Your task to perform on an android device: Go to sound settings Image 0: 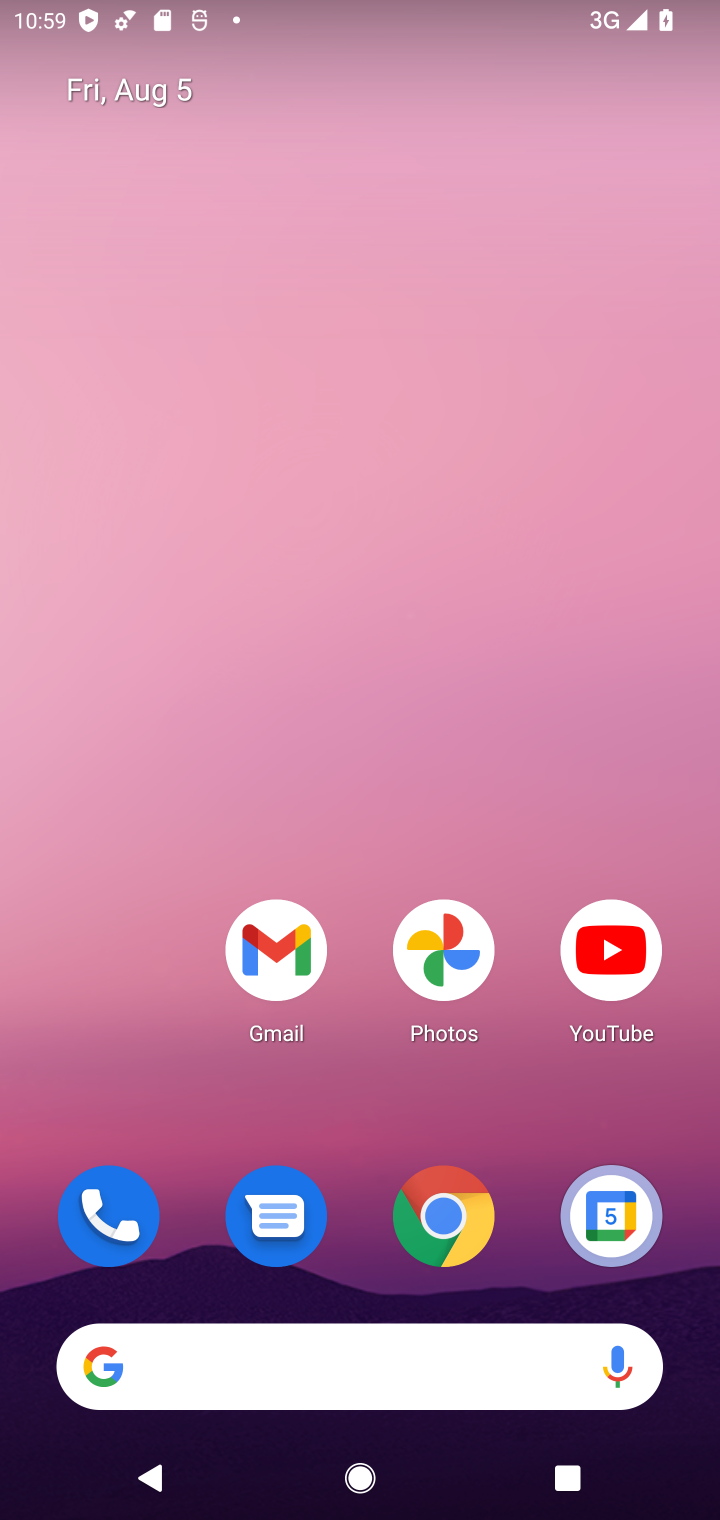
Step 0: drag from (485, 1366) to (591, 64)
Your task to perform on an android device: Go to sound settings Image 1: 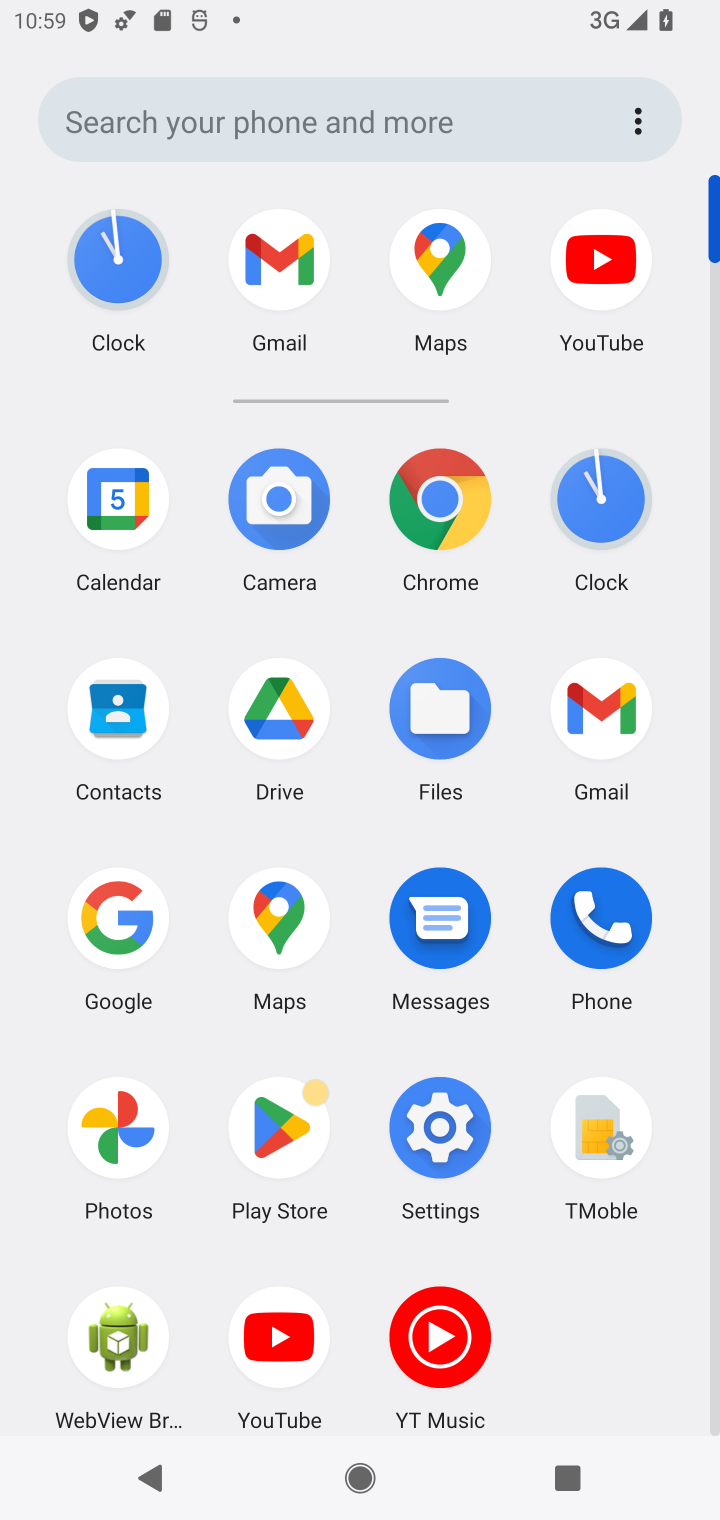
Step 1: click (424, 1148)
Your task to perform on an android device: Go to sound settings Image 2: 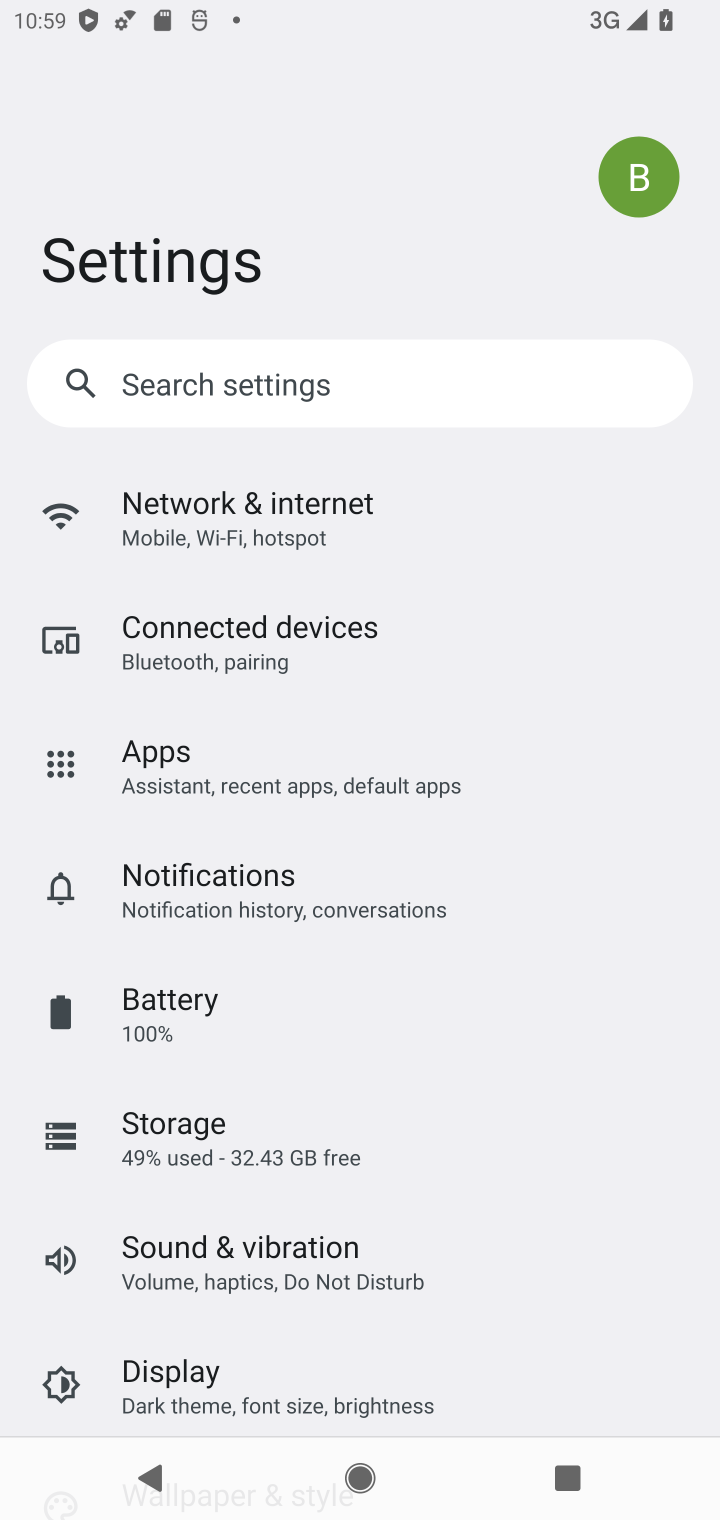
Step 2: click (356, 1254)
Your task to perform on an android device: Go to sound settings Image 3: 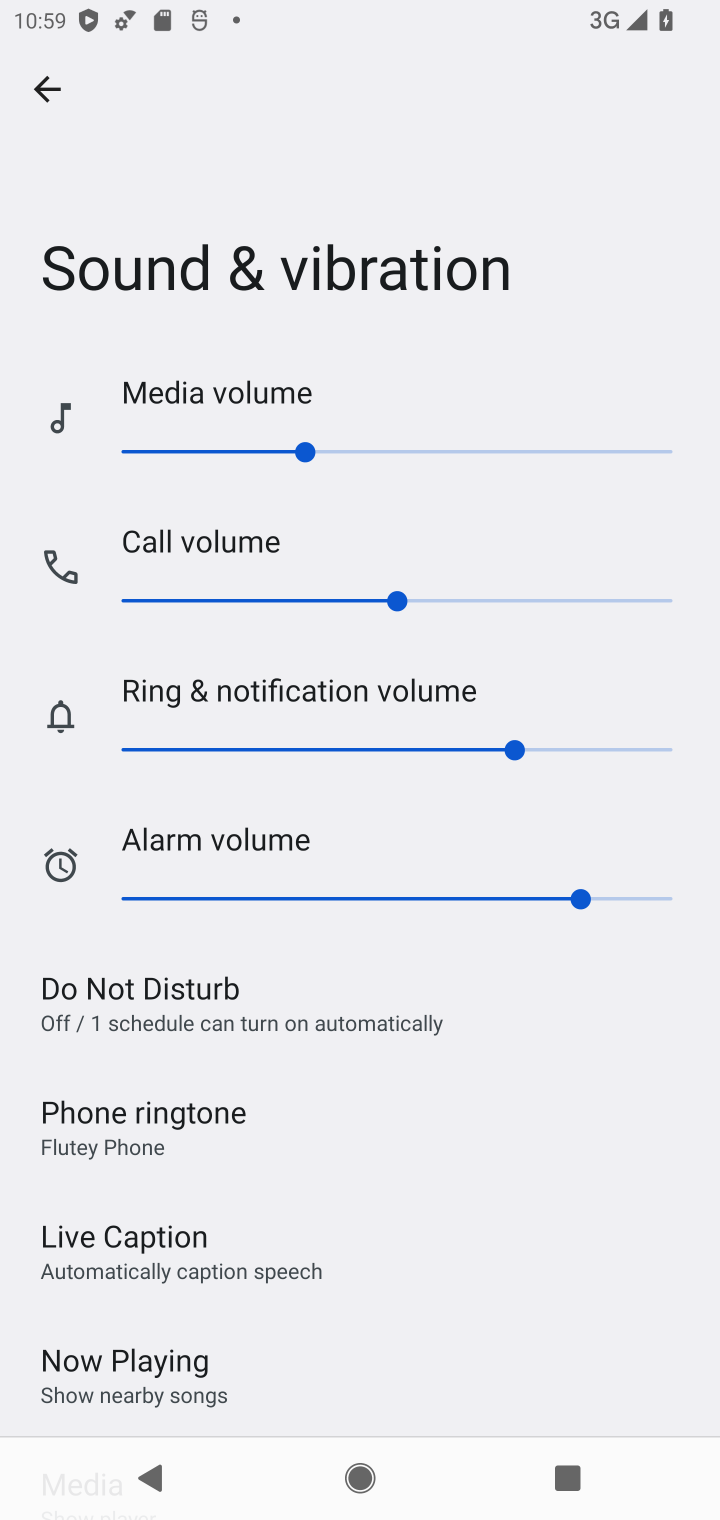
Step 3: task complete